Your task to perform on an android device: View the shopping cart on walmart.com. Search for logitech g pro on walmart.com, select the first entry, add it to the cart, then select checkout. Image 0: 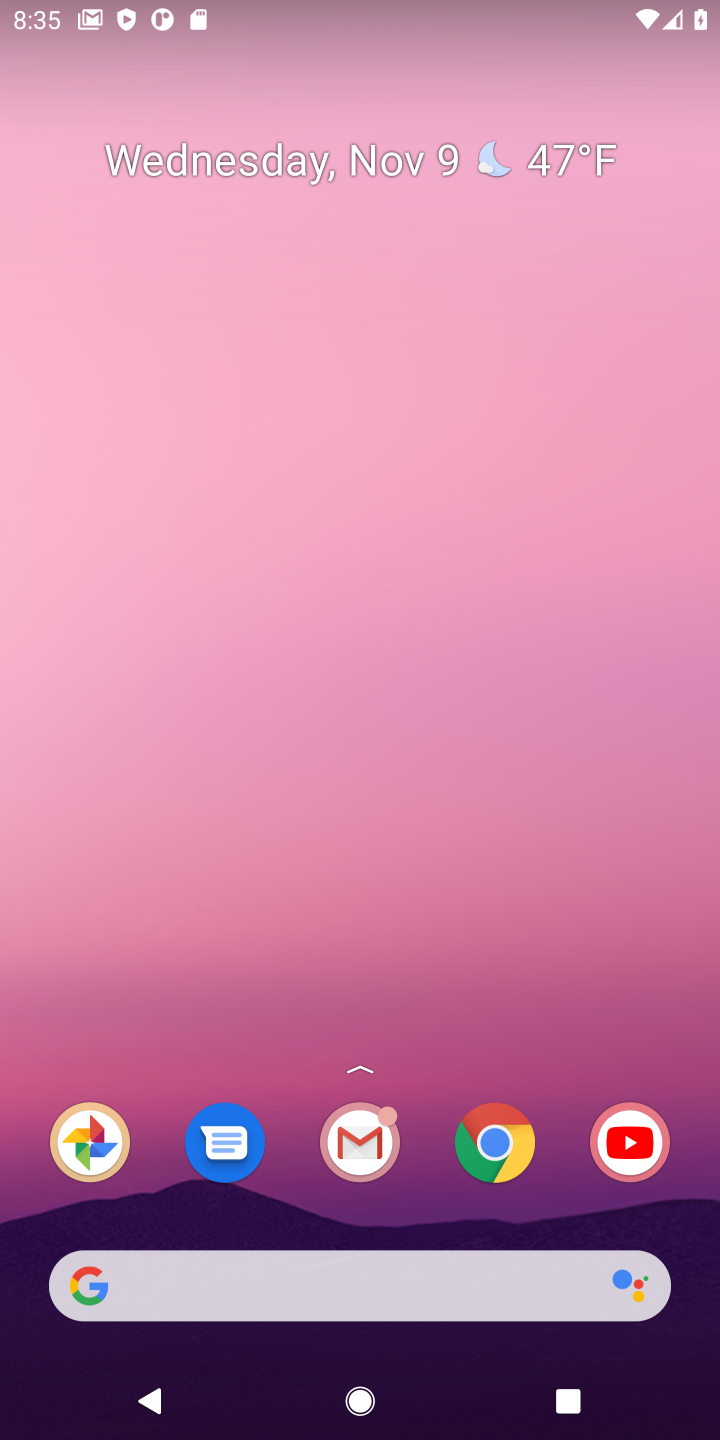
Step 0: drag from (400, 1006) to (370, 211)
Your task to perform on an android device: View the shopping cart on walmart.com. Search for logitech g pro on walmart.com, select the first entry, add it to the cart, then select checkout. Image 1: 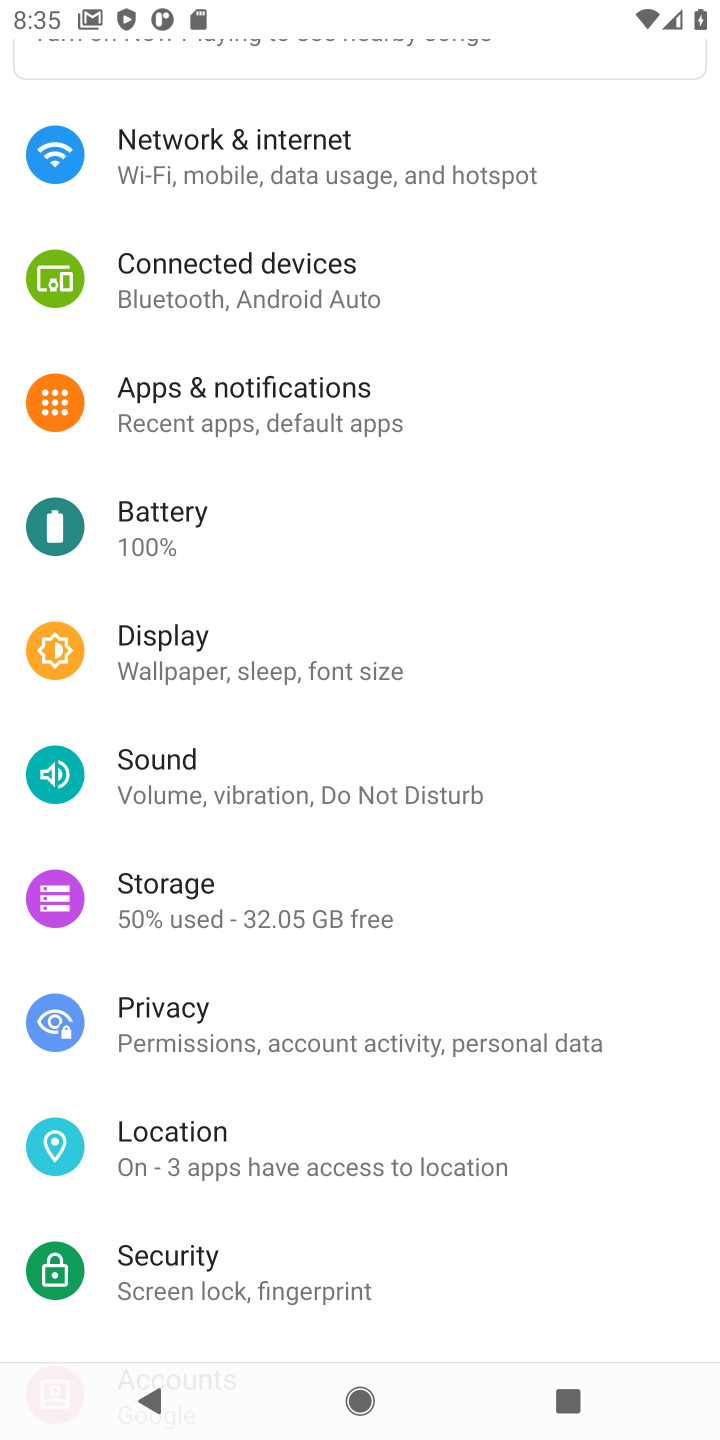
Step 1: press home button
Your task to perform on an android device: View the shopping cart on walmart.com. Search for logitech g pro on walmart.com, select the first entry, add it to the cart, then select checkout. Image 2: 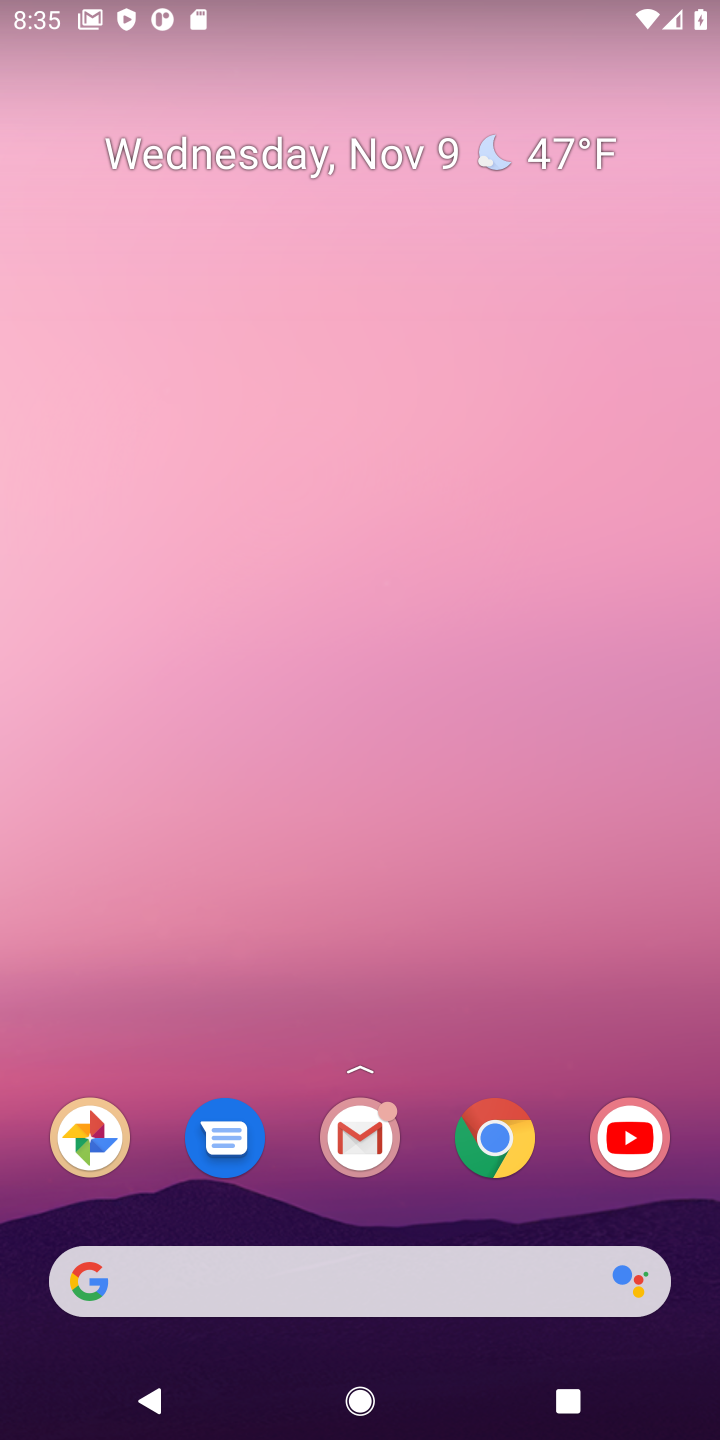
Step 2: drag from (438, 1213) to (380, 254)
Your task to perform on an android device: View the shopping cart on walmart.com. Search for logitech g pro on walmart.com, select the first entry, add it to the cart, then select checkout. Image 3: 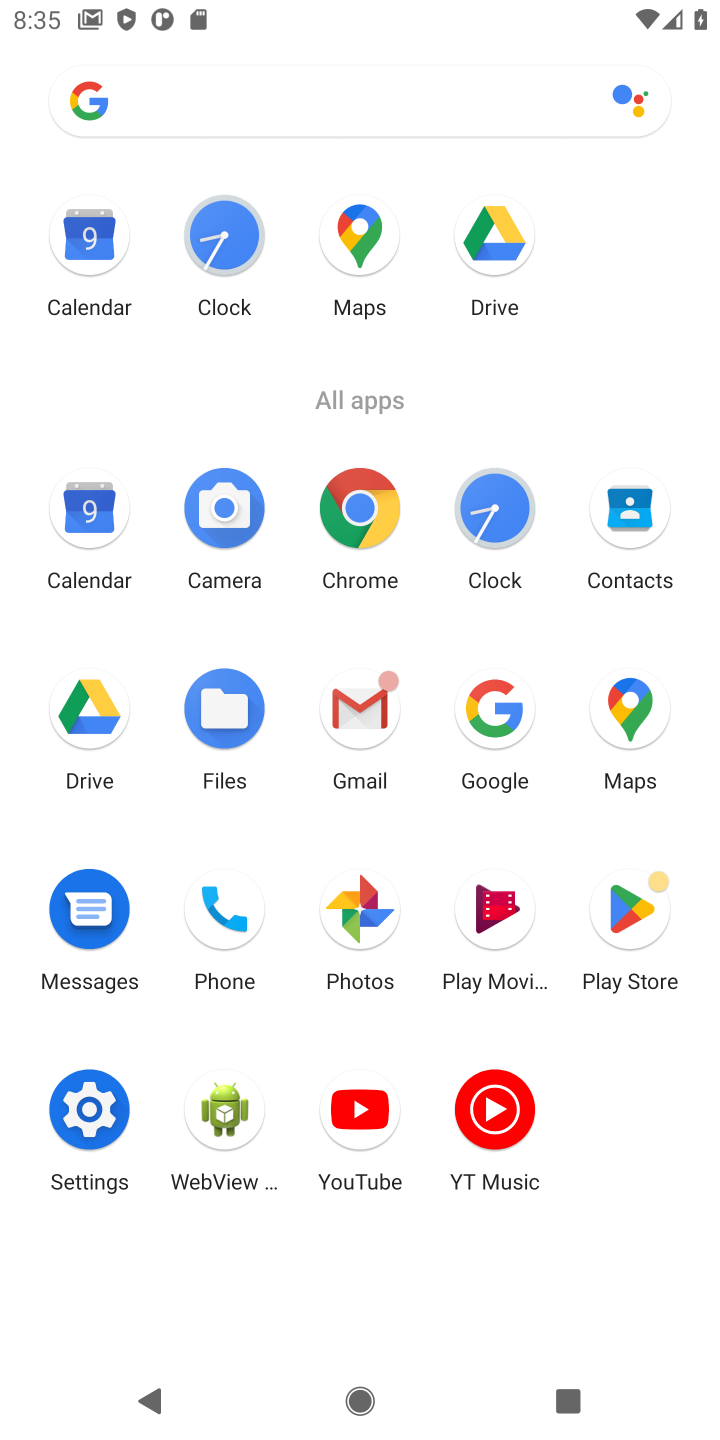
Step 3: click (373, 499)
Your task to perform on an android device: View the shopping cart on walmart.com. Search for logitech g pro on walmart.com, select the first entry, add it to the cart, then select checkout. Image 4: 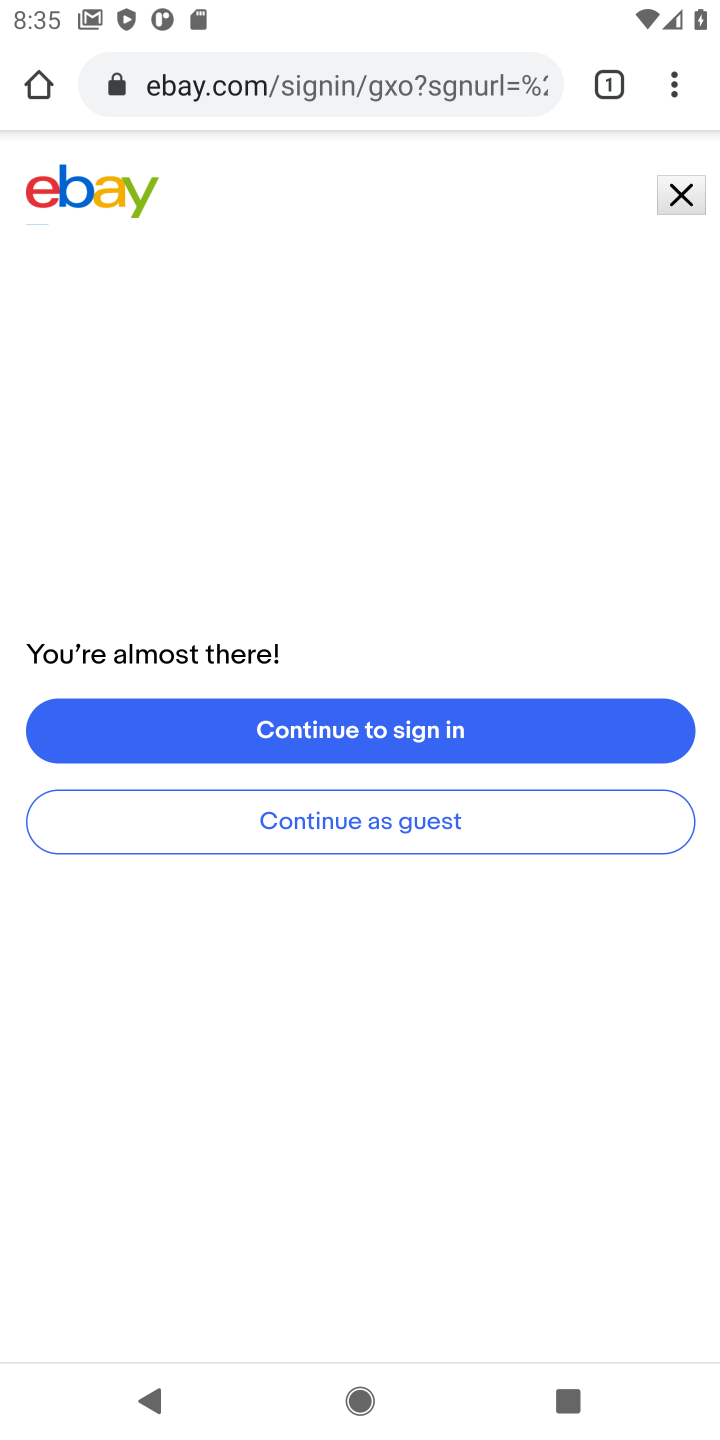
Step 4: click (391, 85)
Your task to perform on an android device: View the shopping cart on walmart.com. Search for logitech g pro on walmart.com, select the first entry, add it to the cart, then select checkout. Image 5: 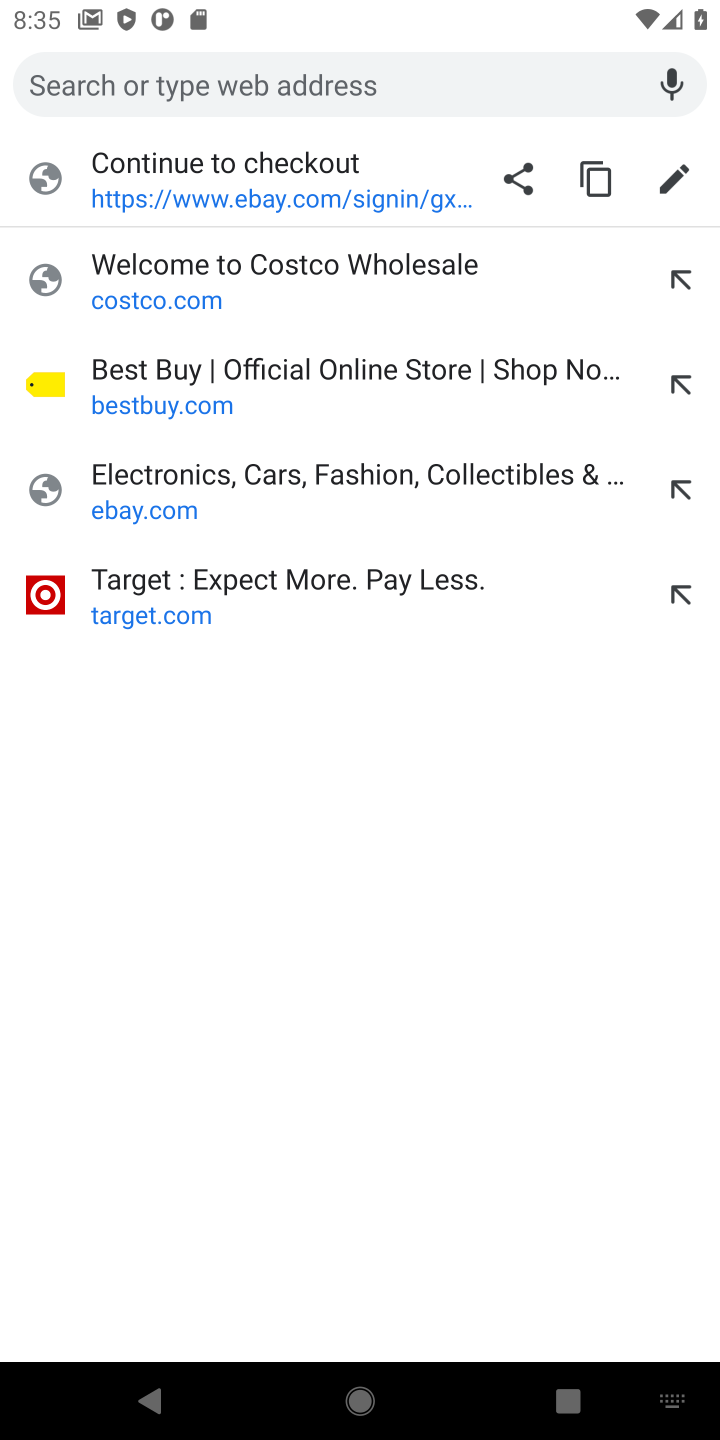
Step 5: type "walmart.com"
Your task to perform on an android device: View the shopping cart on walmart.com. Search for logitech g pro on walmart.com, select the first entry, add it to the cart, then select checkout. Image 6: 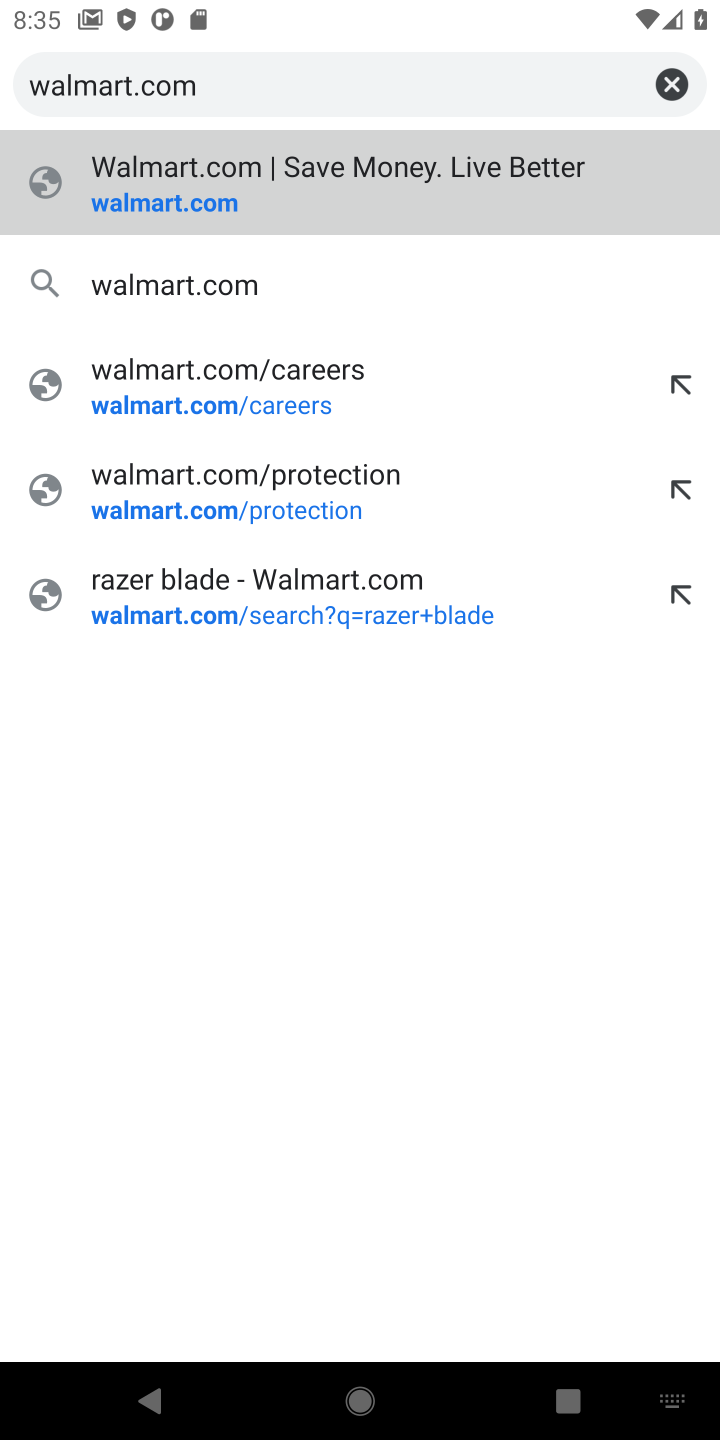
Step 6: press enter
Your task to perform on an android device: View the shopping cart on walmart.com. Search for logitech g pro on walmart.com, select the first entry, add it to the cart, then select checkout. Image 7: 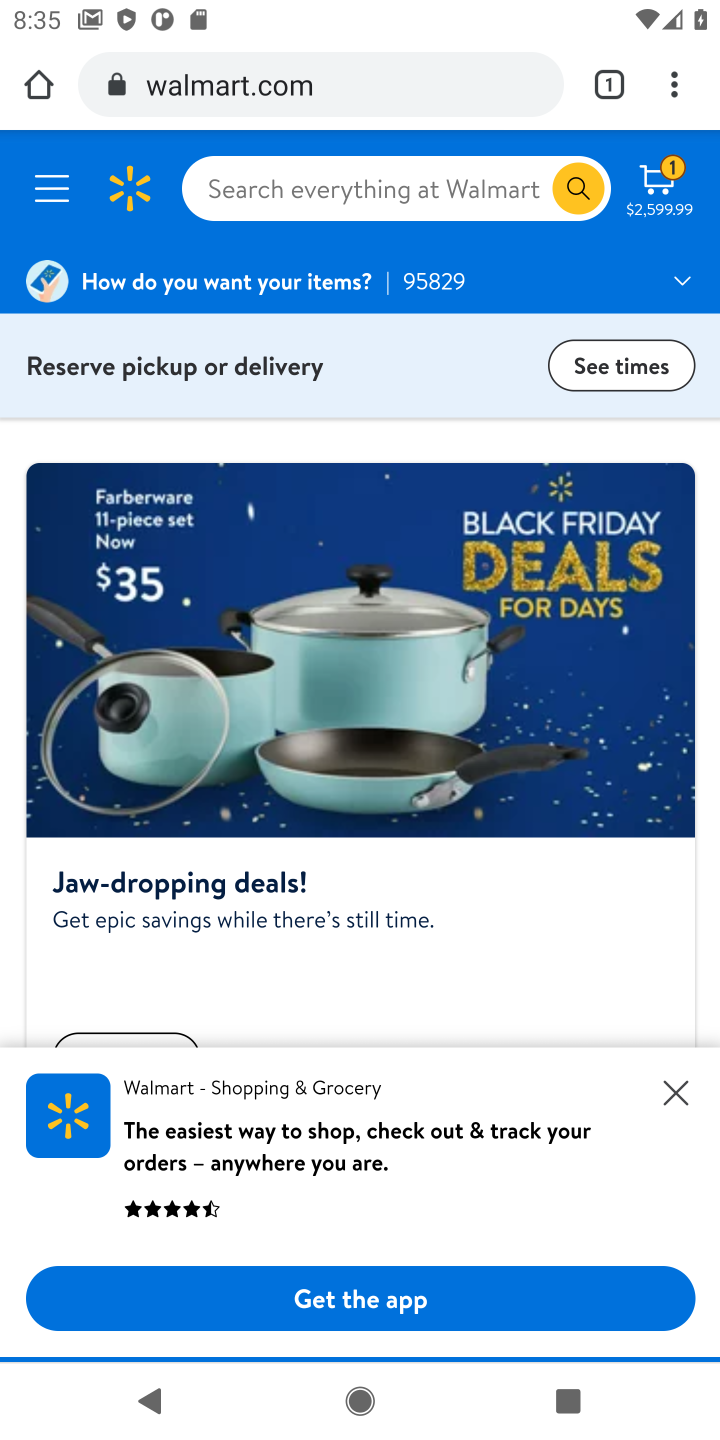
Step 7: click (660, 179)
Your task to perform on an android device: View the shopping cart on walmart.com. Search for logitech g pro on walmart.com, select the first entry, add it to the cart, then select checkout. Image 8: 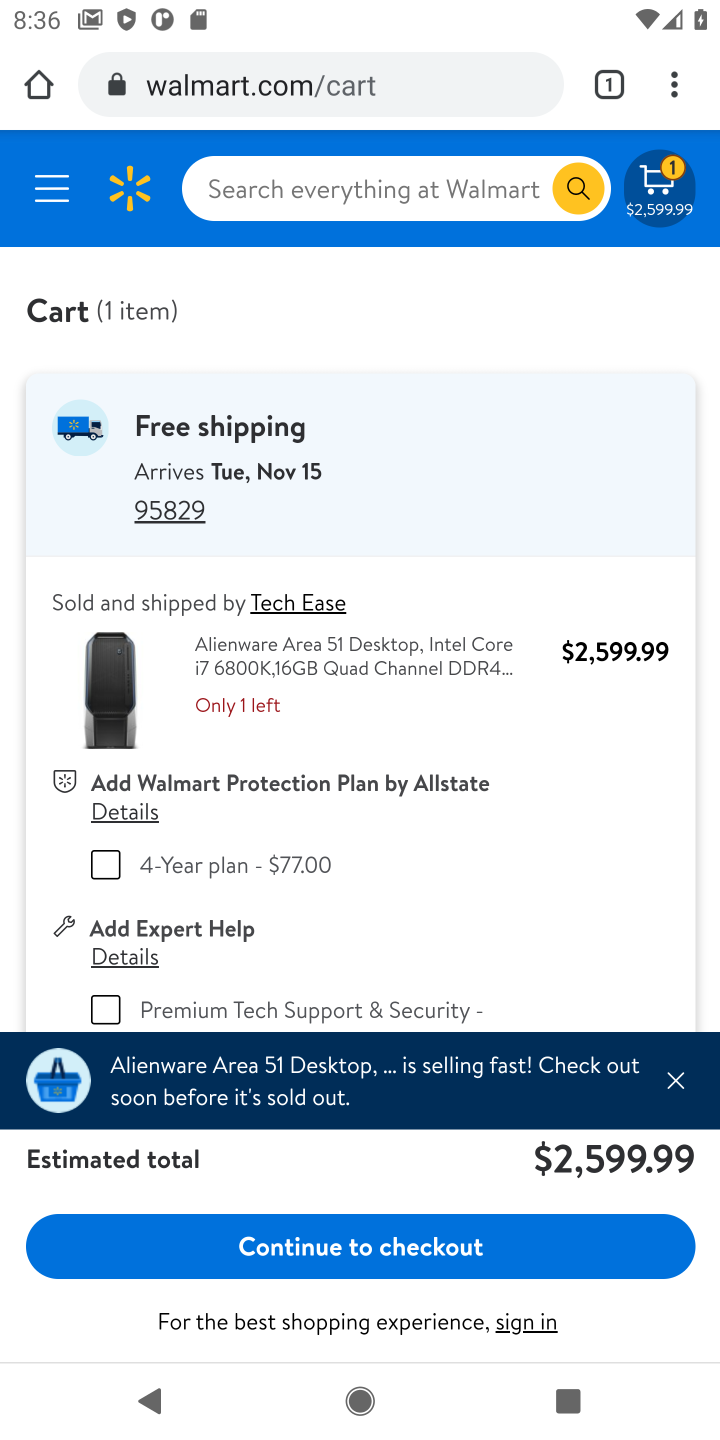
Step 8: click (480, 177)
Your task to perform on an android device: View the shopping cart on walmart.com. Search for logitech g pro on walmart.com, select the first entry, add it to the cart, then select checkout. Image 9: 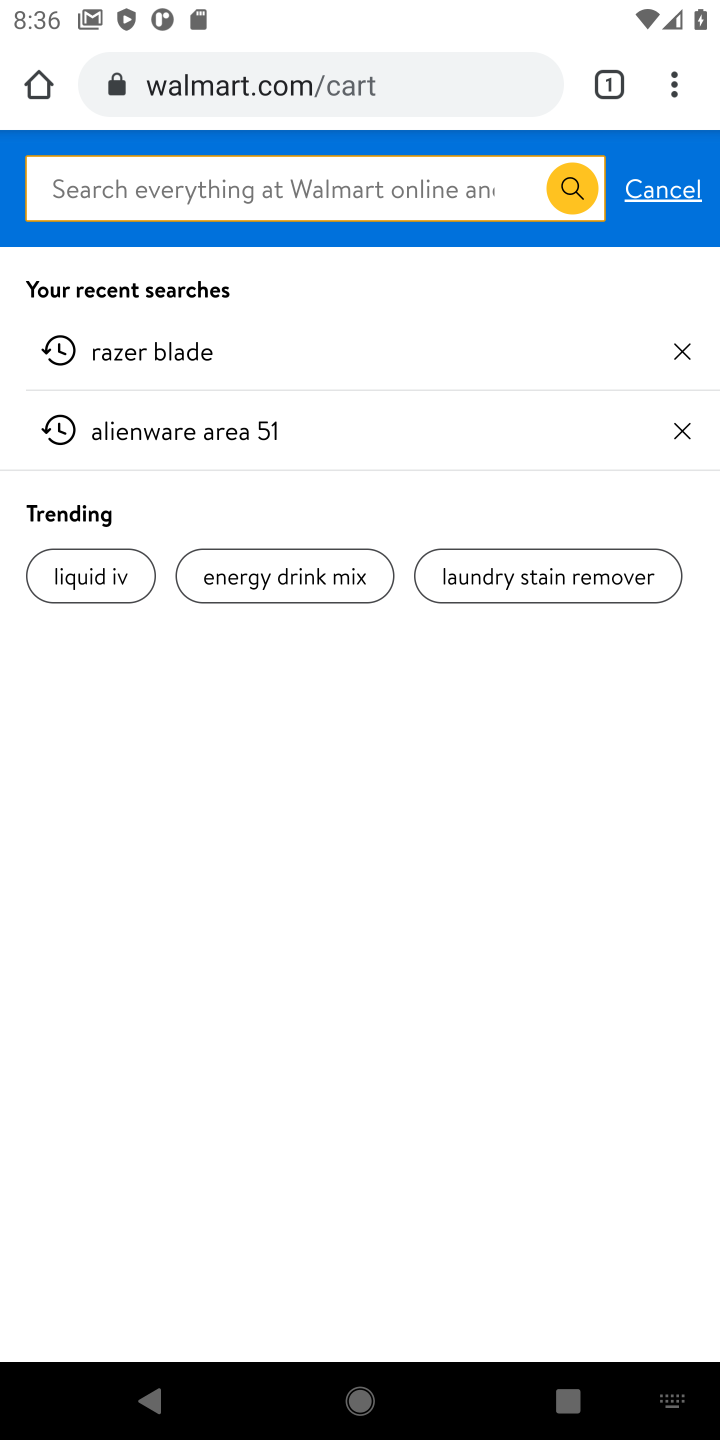
Step 9: type "logitech g pro"
Your task to perform on an android device: View the shopping cart on walmart.com. Search for logitech g pro on walmart.com, select the first entry, add it to the cart, then select checkout. Image 10: 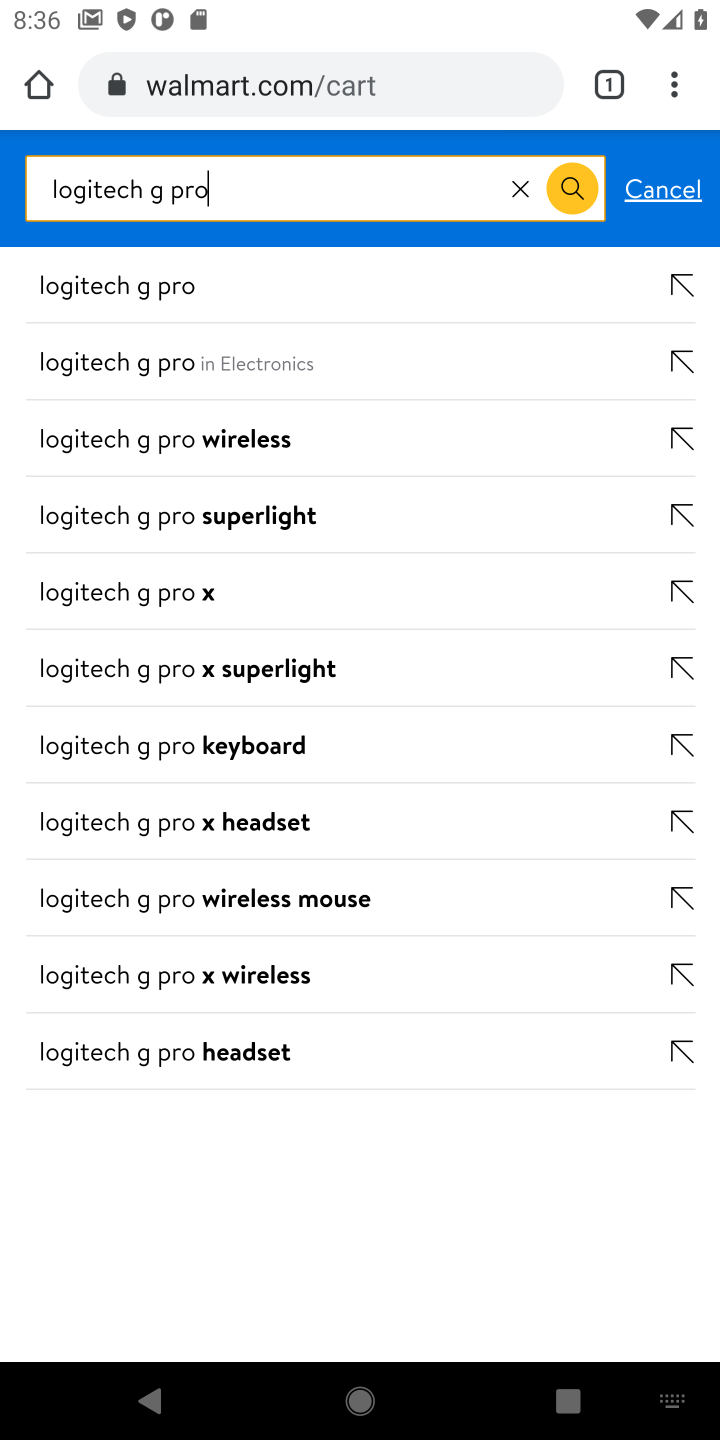
Step 10: press enter
Your task to perform on an android device: View the shopping cart on walmart.com. Search for logitech g pro on walmart.com, select the first entry, add it to the cart, then select checkout. Image 11: 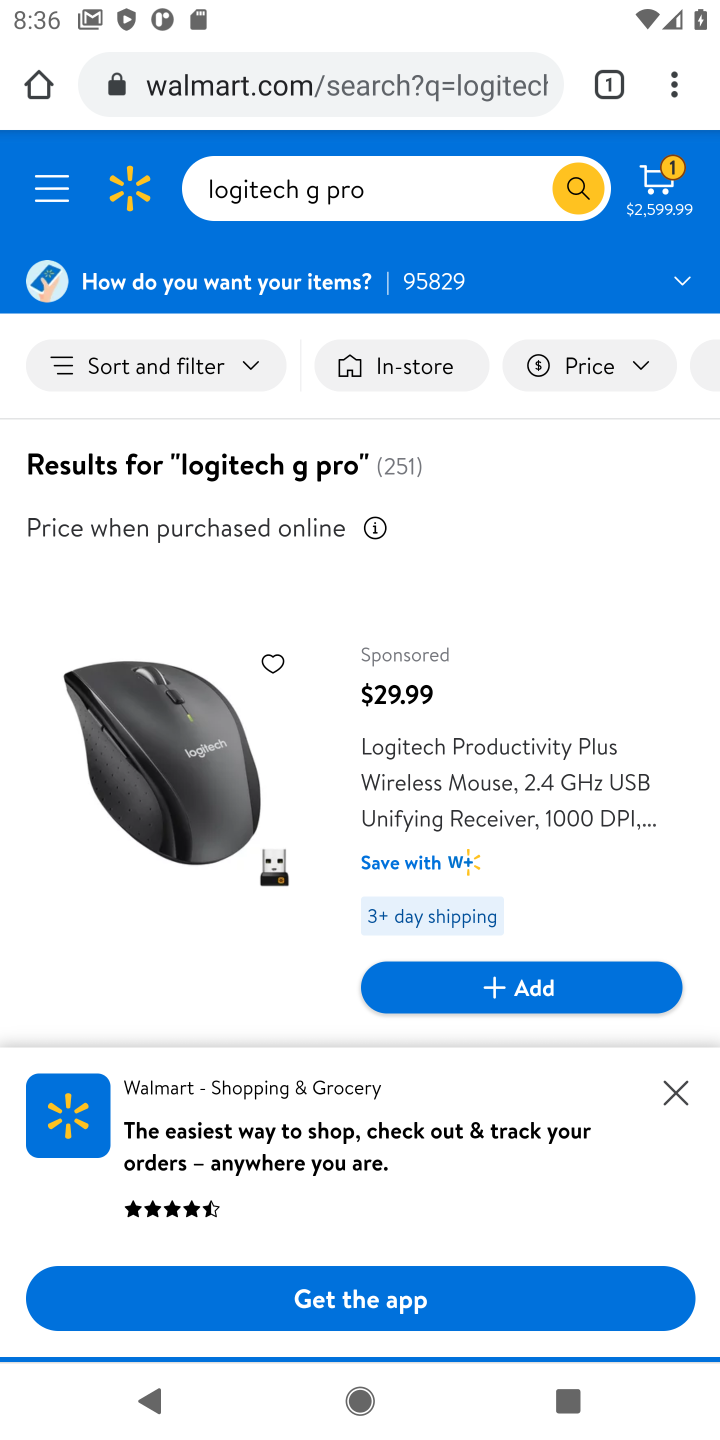
Step 11: drag from (183, 906) to (295, 175)
Your task to perform on an android device: View the shopping cart on walmart.com. Search for logitech g pro on walmart.com, select the first entry, add it to the cart, then select checkout. Image 12: 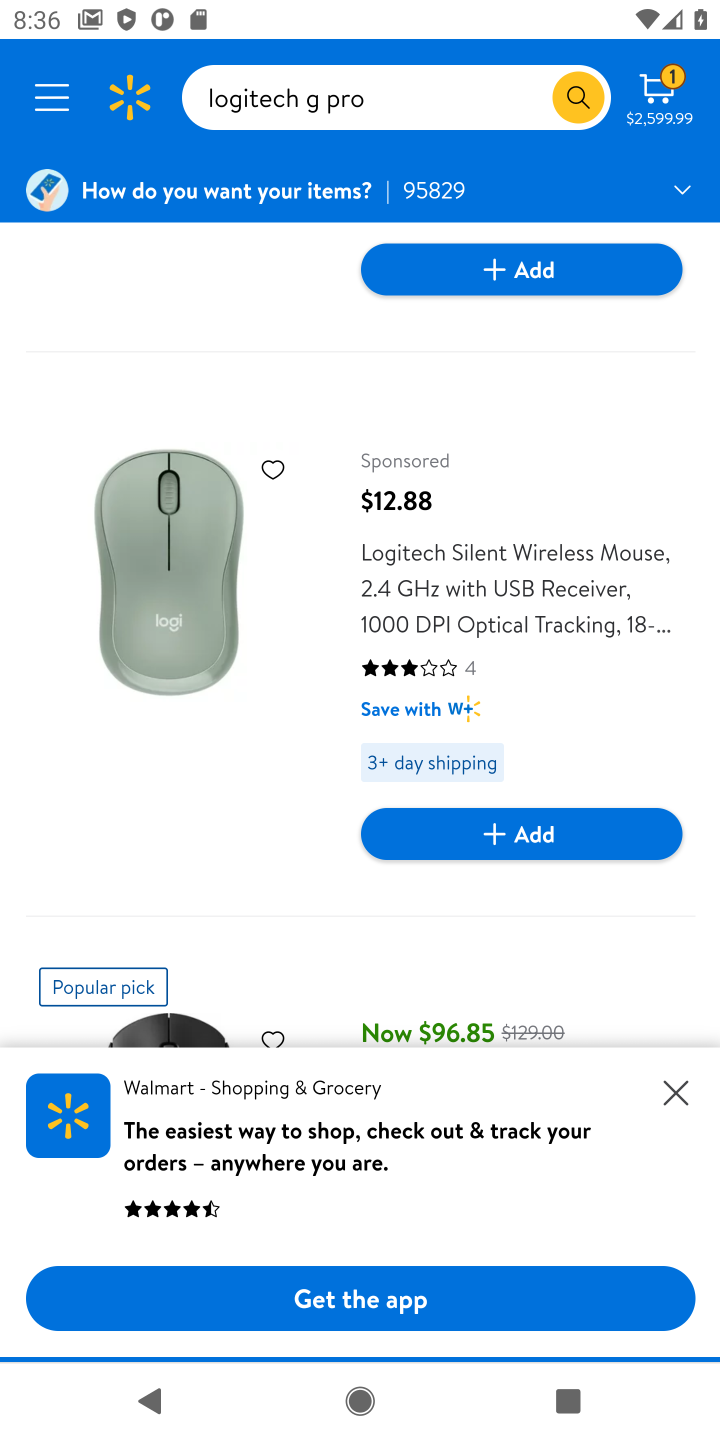
Step 12: drag from (264, 950) to (270, 336)
Your task to perform on an android device: View the shopping cart on walmart.com. Search for logitech g pro on walmart.com, select the first entry, add it to the cart, then select checkout. Image 13: 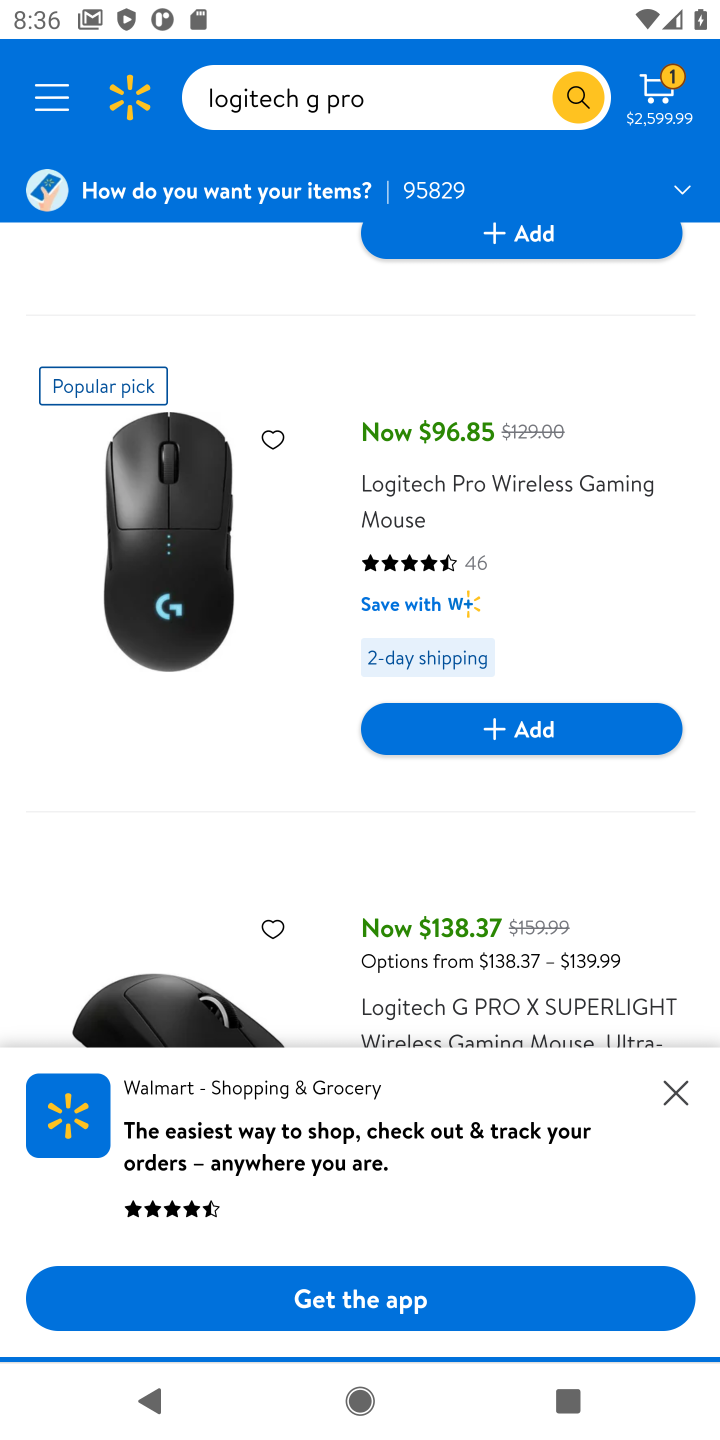
Step 13: drag from (198, 971) to (187, 641)
Your task to perform on an android device: View the shopping cart on walmart.com. Search for logitech g pro on walmart.com, select the first entry, add it to the cart, then select checkout. Image 14: 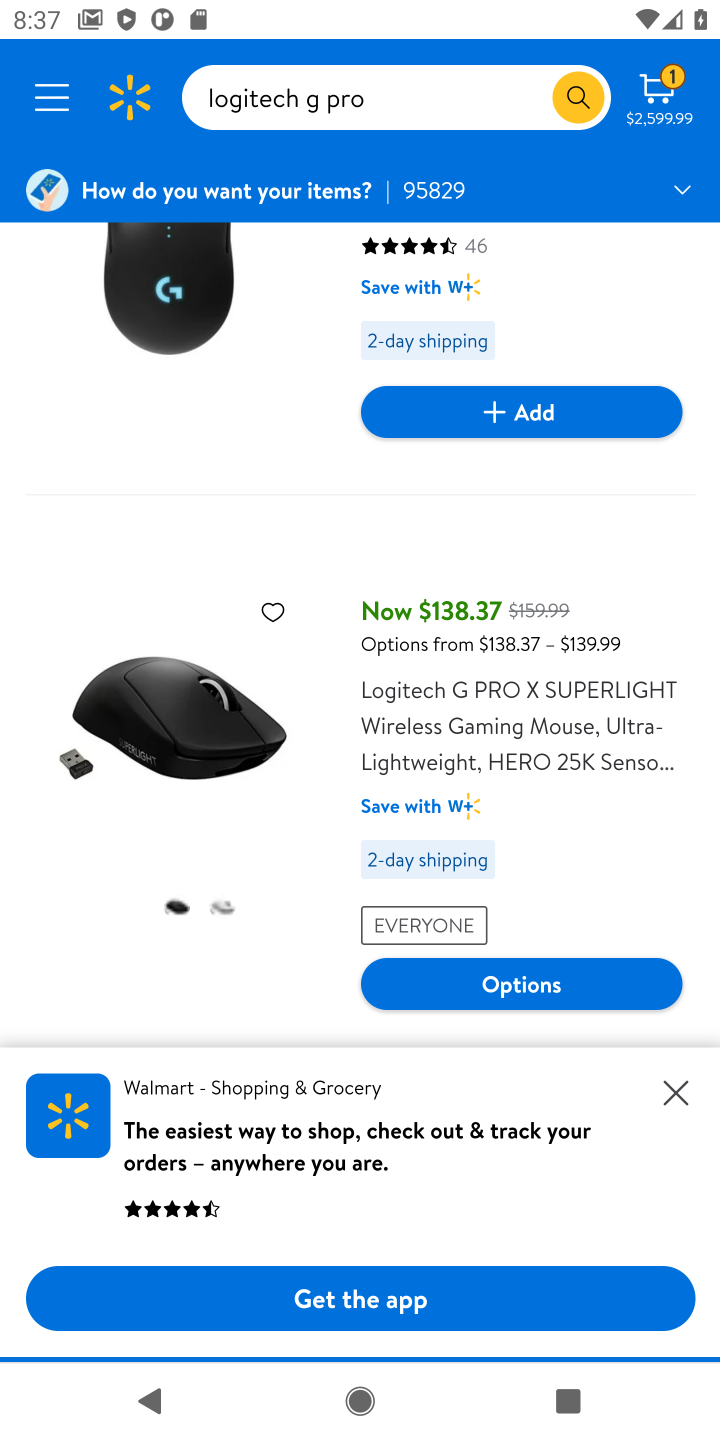
Step 14: click (527, 984)
Your task to perform on an android device: View the shopping cart on walmart.com. Search for logitech g pro on walmart.com, select the first entry, add it to the cart, then select checkout. Image 15: 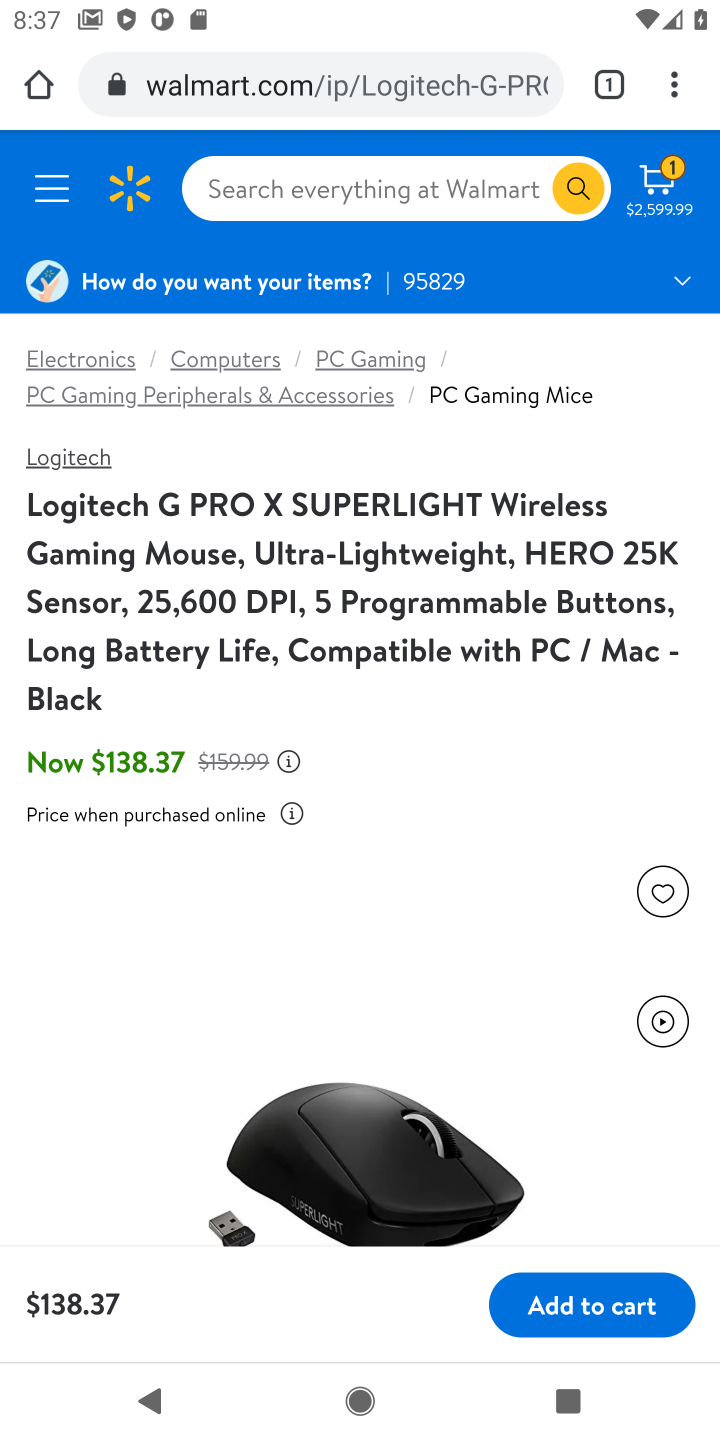
Step 15: click (585, 1325)
Your task to perform on an android device: View the shopping cart on walmart.com. Search for logitech g pro on walmart.com, select the first entry, add it to the cart, then select checkout. Image 16: 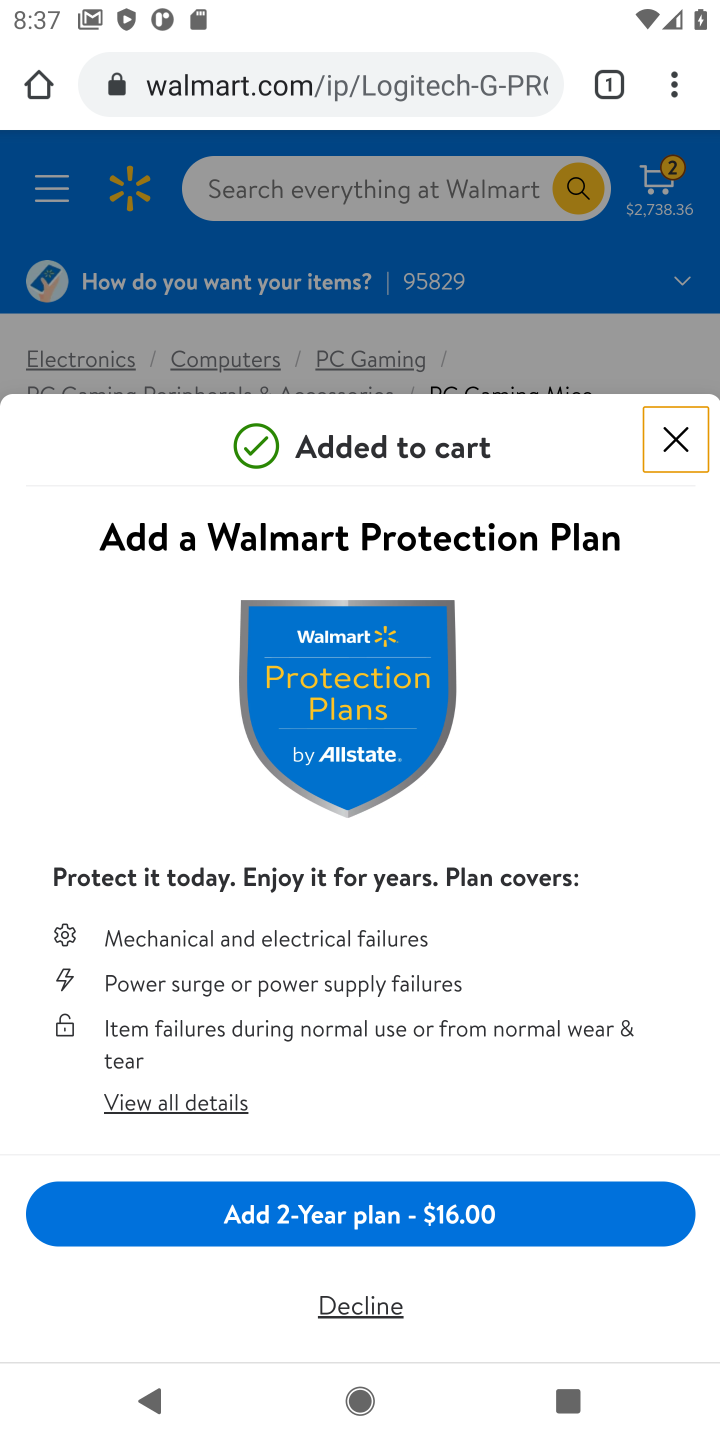
Step 16: click (658, 434)
Your task to perform on an android device: View the shopping cart on walmart.com. Search for logitech g pro on walmart.com, select the first entry, add it to the cart, then select checkout. Image 17: 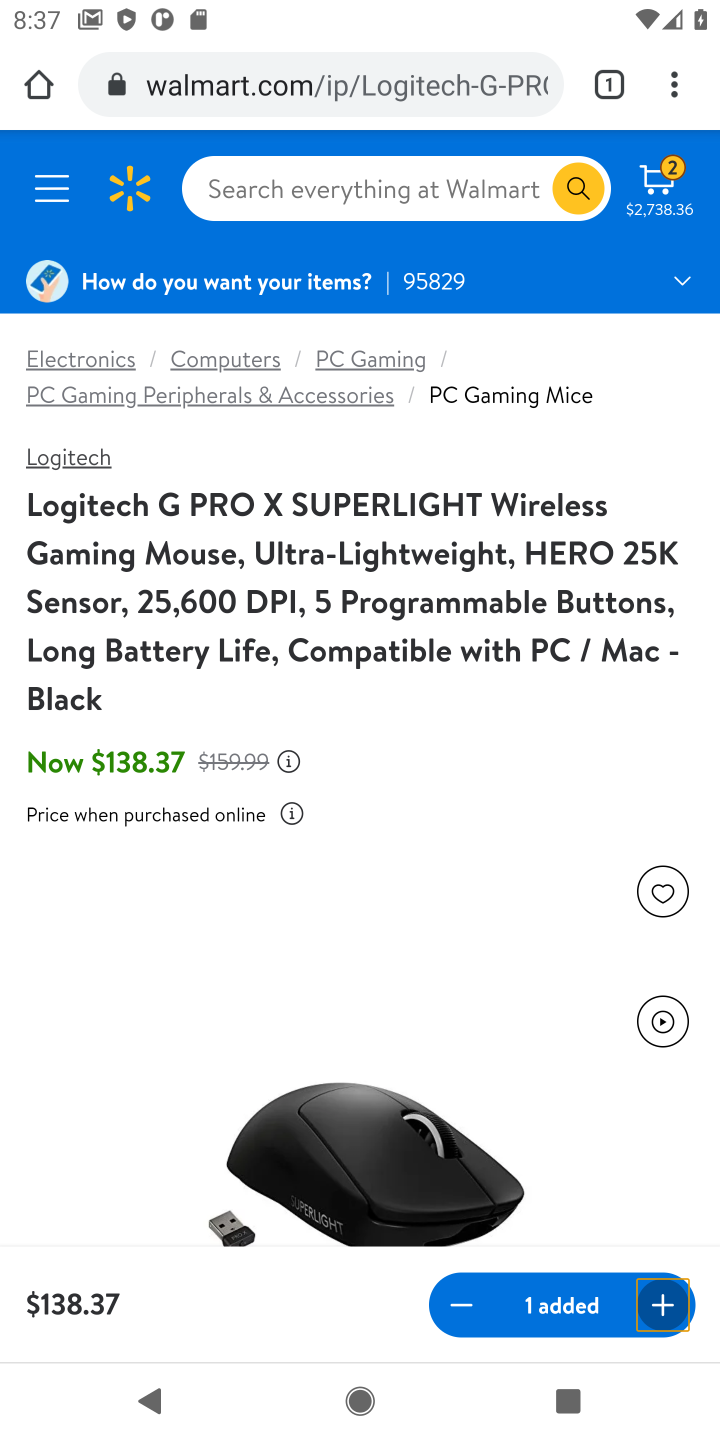
Step 17: click (679, 194)
Your task to perform on an android device: View the shopping cart on walmart.com. Search for logitech g pro on walmart.com, select the first entry, add it to the cart, then select checkout. Image 18: 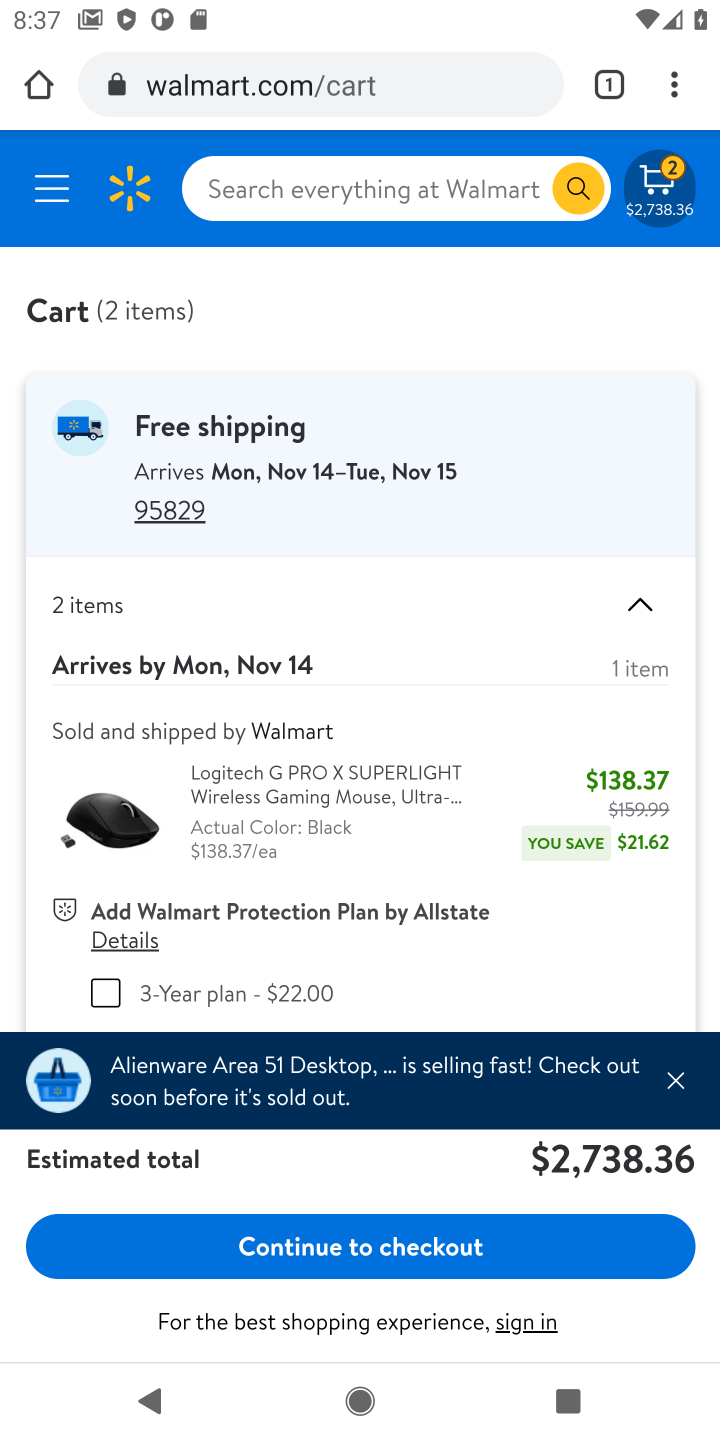
Step 18: click (462, 1260)
Your task to perform on an android device: View the shopping cart on walmart.com. Search for logitech g pro on walmart.com, select the first entry, add it to the cart, then select checkout. Image 19: 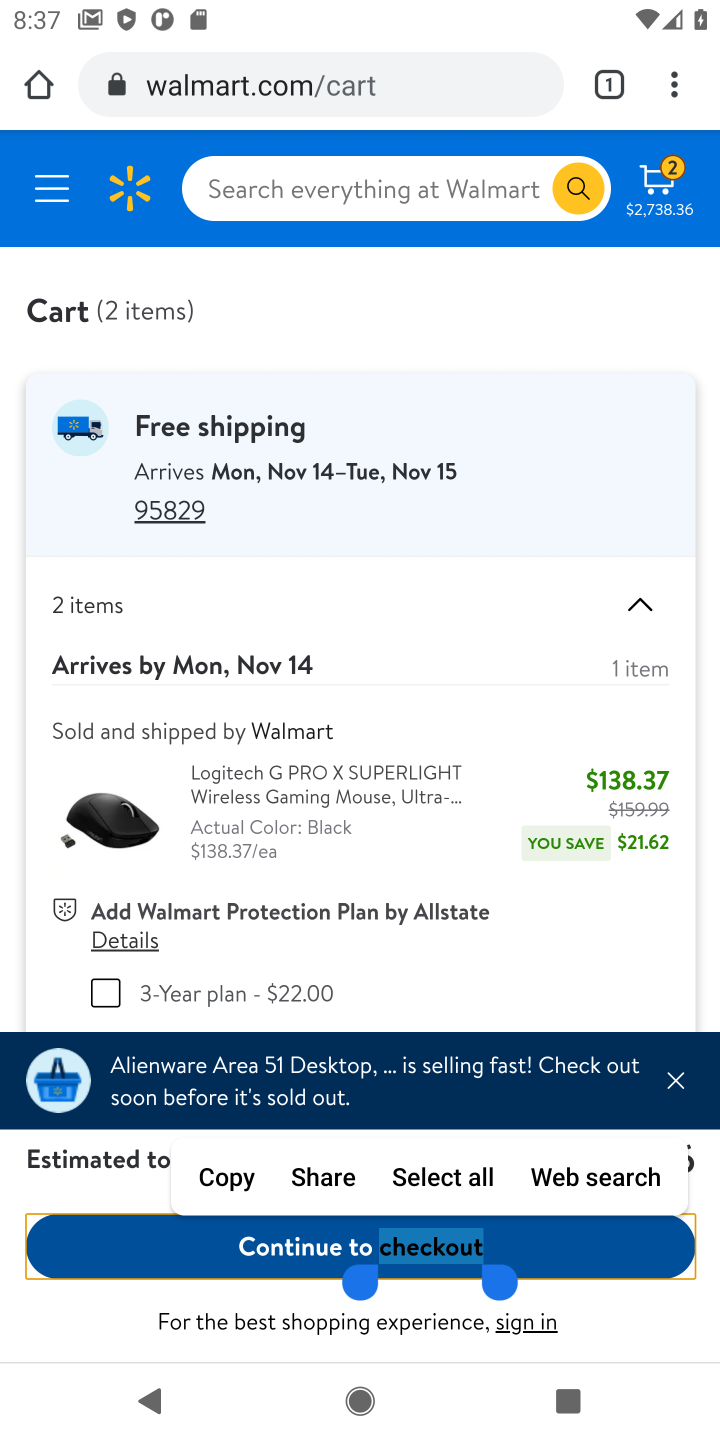
Step 19: click (291, 1253)
Your task to perform on an android device: View the shopping cart on walmart.com. Search for logitech g pro on walmart.com, select the first entry, add it to the cart, then select checkout. Image 20: 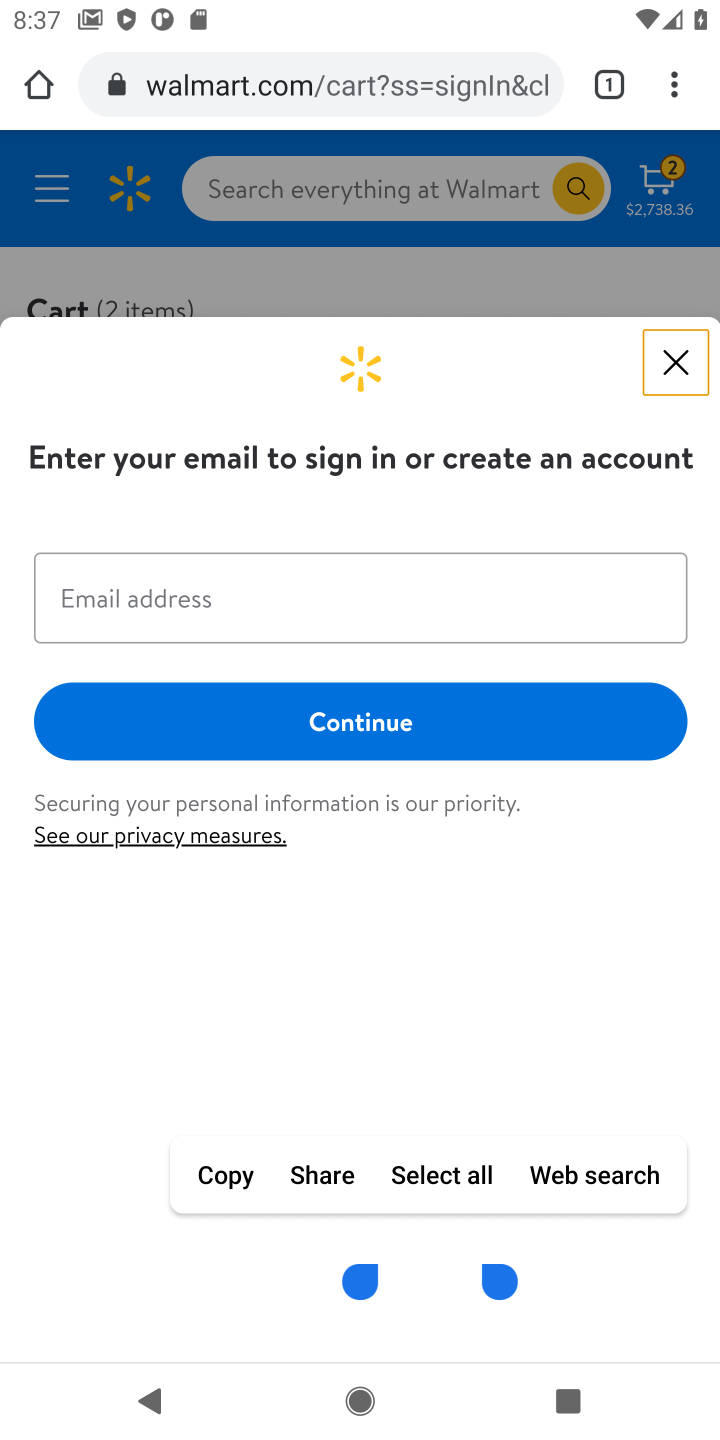
Step 20: task complete